Your task to perform on an android device: toggle notification dots Image 0: 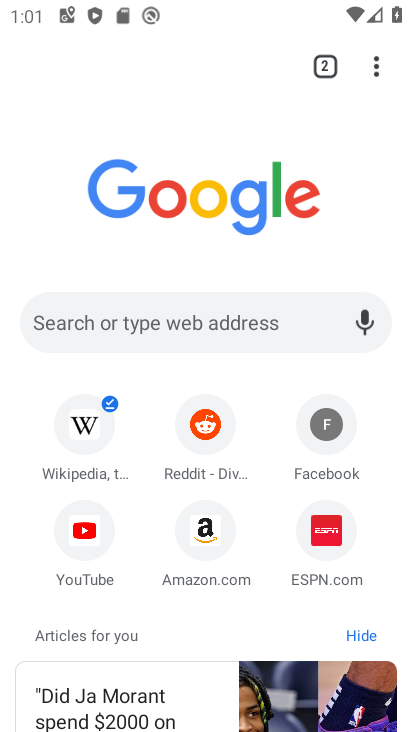
Step 0: press home button
Your task to perform on an android device: toggle notification dots Image 1: 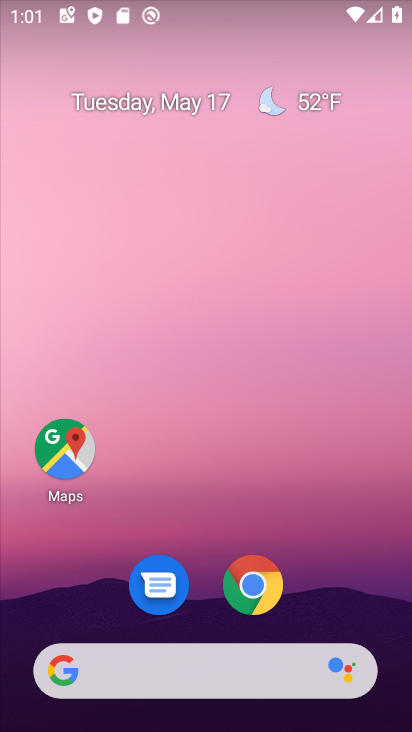
Step 1: drag from (296, 515) to (297, 46)
Your task to perform on an android device: toggle notification dots Image 2: 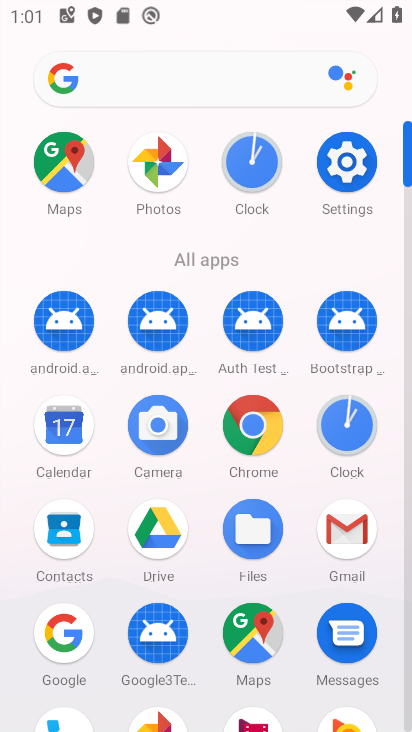
Step 2: click (338, 169)
Your task to perform on an android device: toggle notification dots Image 3: 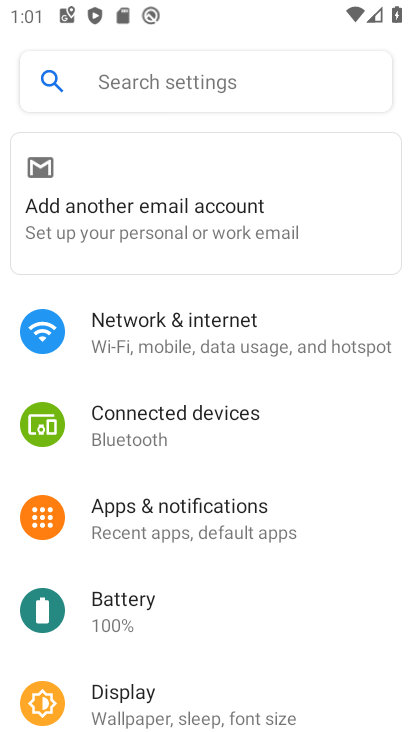
Step 3: click (242, 515)
Your task to perform on an android device: toggle notification dots Image 4: 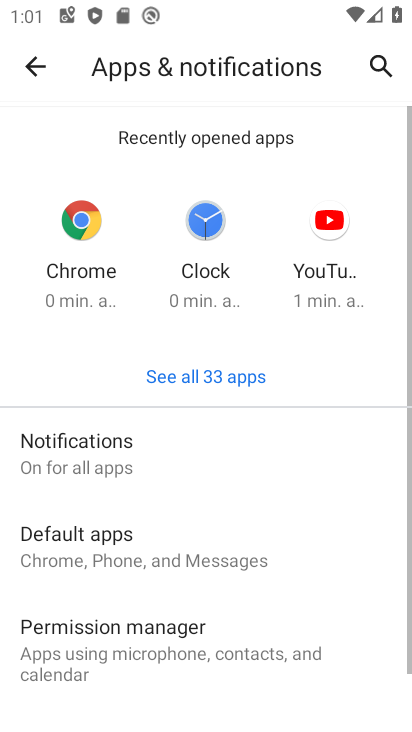
Step 4: click (237, 464)
Your task to perform on an android device: toggle notification dots Image 5: 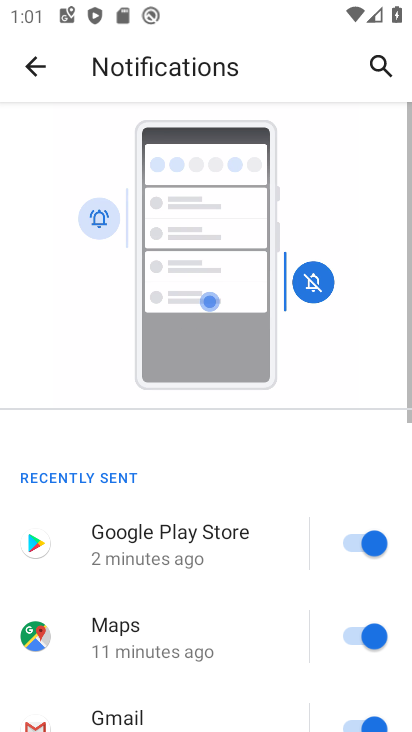
Step 5: drag from (271, 582) to (304, 29)
Your task to perform on an android device: toggle notification dots Image 6: 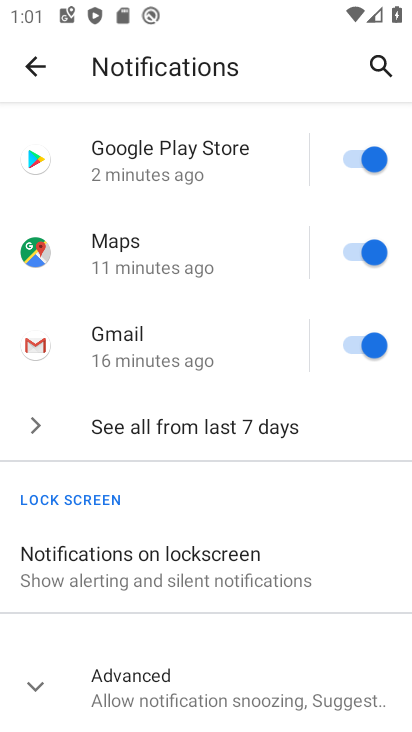
Step 6: click (35, 676)
Your task to perform on an android device: toggle notification dots Image 7: 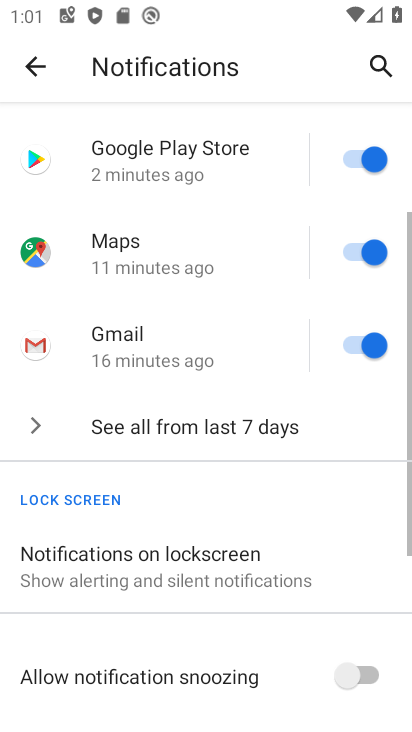
Step 7: drag from (187, 669) to (233, 263)
Your task to perform on an android device: toggle notification dots Image 8: 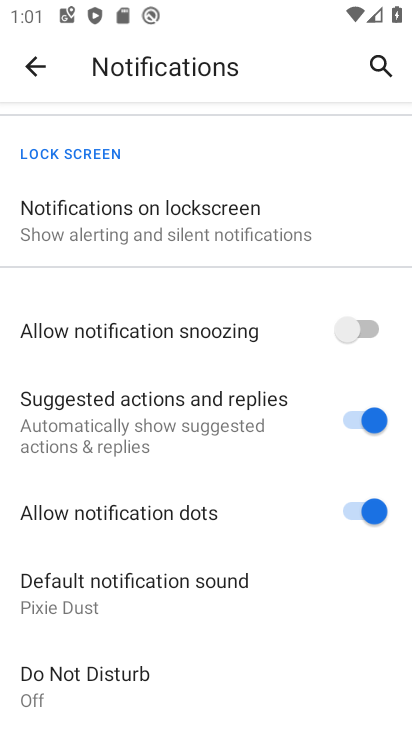
Step 8: click (353, 508)
Your task to perform on an android device: toggle notification dots Image 9: 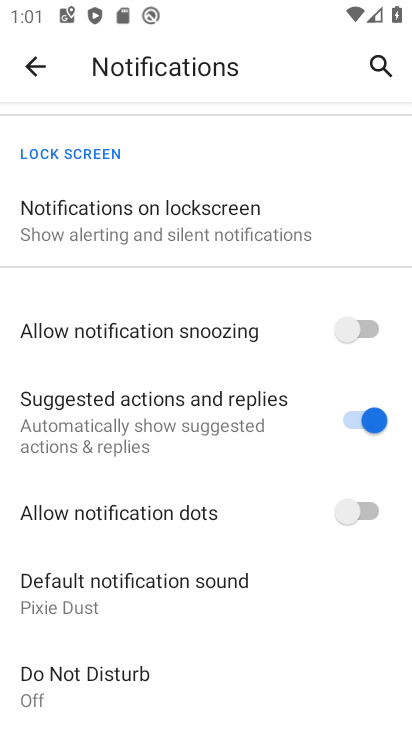
Step 9: task complete